Your task to perform on an android device: change keyboard looks Image 0: 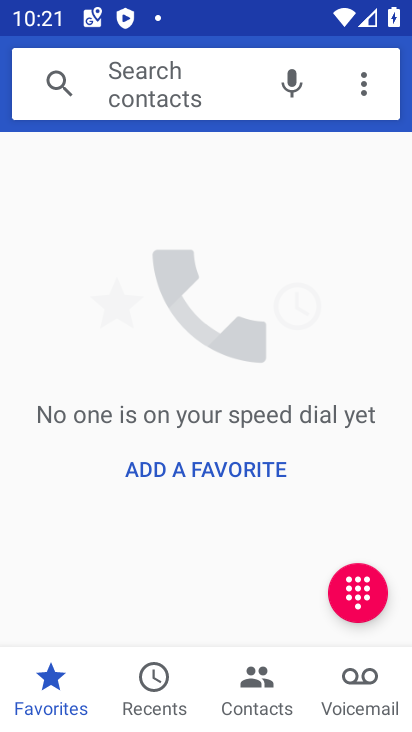
Step 0: press back button
Your task to perform on an android device: change keyboard looks Image 1: 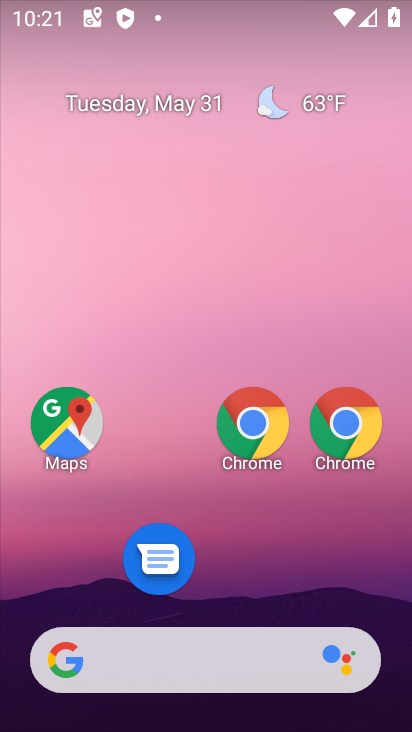
Step 1: drag from (271, 708) to (155, 72)
Your task to perform on an android device: change keyboard looks Image 2: 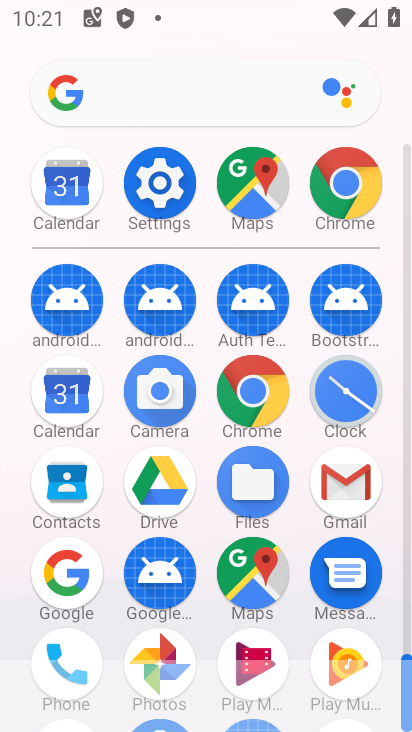
Step 2: click (159, 192)
Your task to perform on an android device: change keyboard looks Image 3: 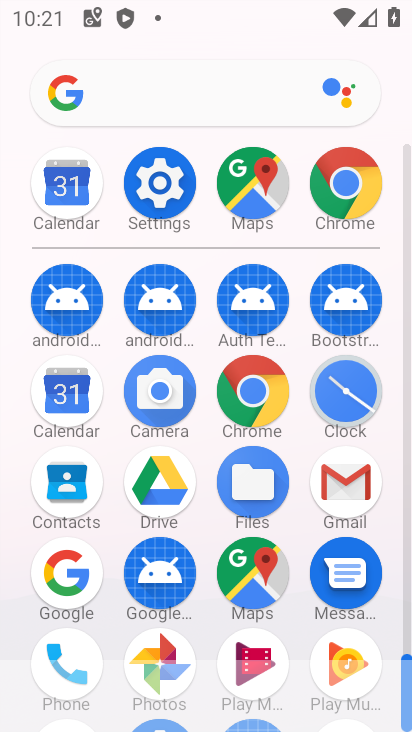
Step 3: click (156, 175)
Your task to perform on an android device: change keyboard looks Image 4: 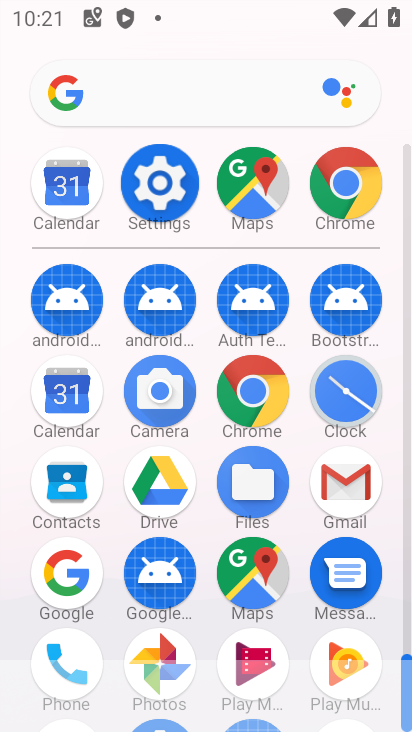
Step 4: click (160, 168)
Your task to perform on an android device: change keyboard looks Image 5: 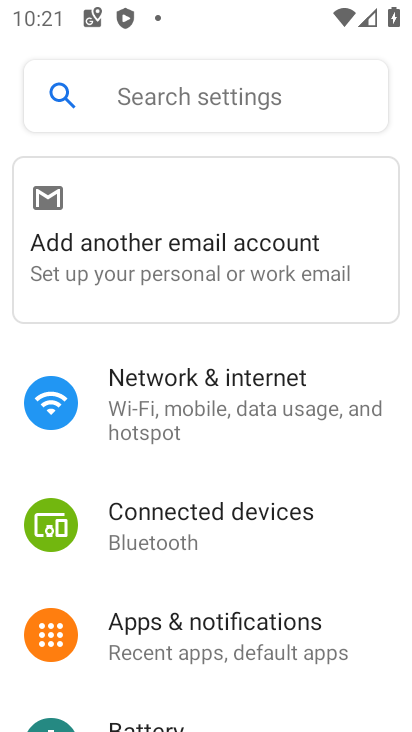
Step 5: drag from (223, 599) to (168, 322)
Your task to perform on an android device: change keyboard looks Image 6: 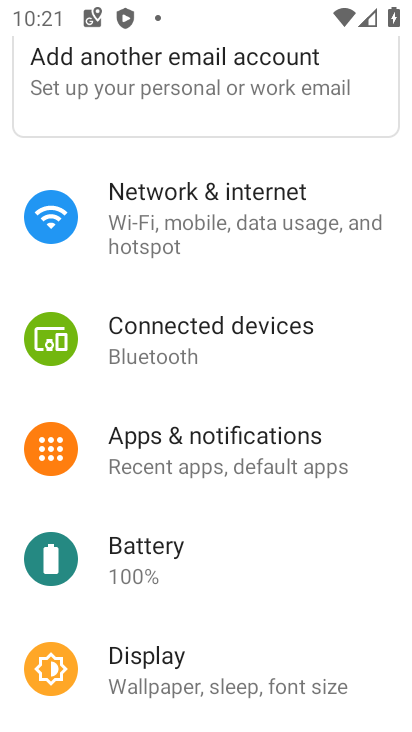
Step 6: drag from (274, 635) to (207, 277)
Your task to perform on an android device: change keyboard looks Image 7: 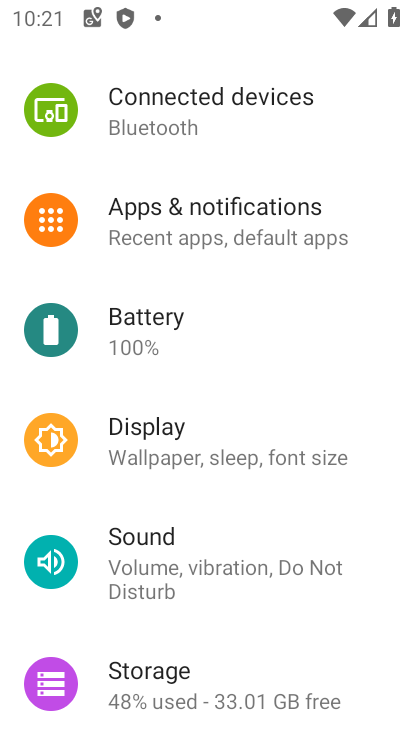
Step 7: drag from (235, 506) to (230, 202)
Your task to perform on an android device: change keyboard looks Image 8: 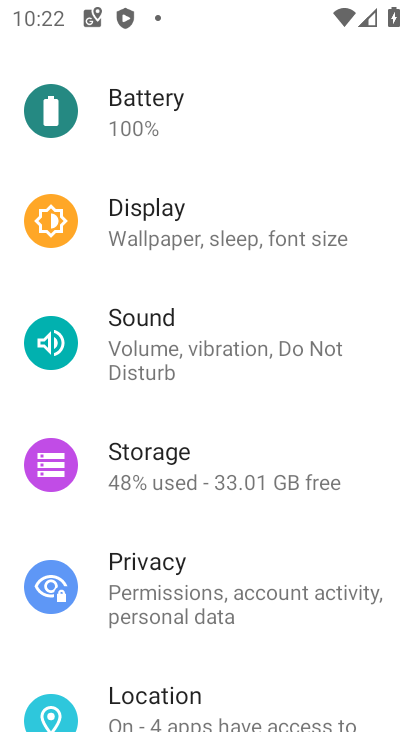
Step 8: drag from (228, 541) to (232, 154)
Your task to perform on an android device: change keyboard looks Image 9: 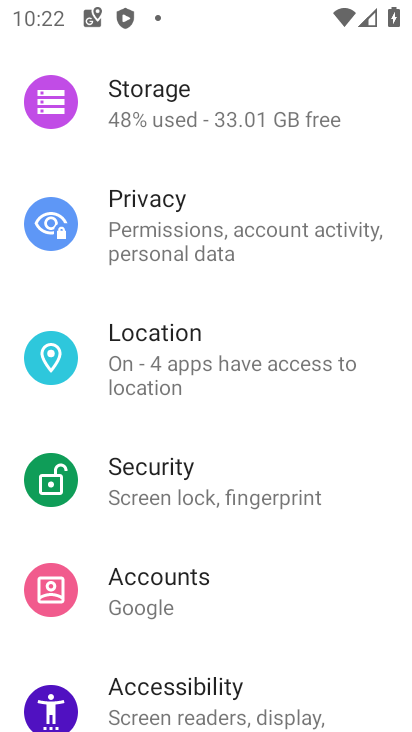
Step 9: drag from (243, 336) to (244, 160)
Your task to perform on an android device: change keyboard looks Image 10: 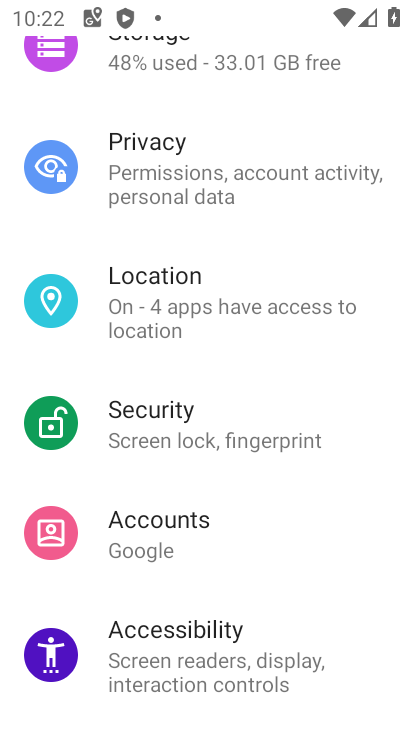
Step 10: drag from (165, 218) to (201, 429)
Your task to perform on an android device: change keyboard looks Image 11: 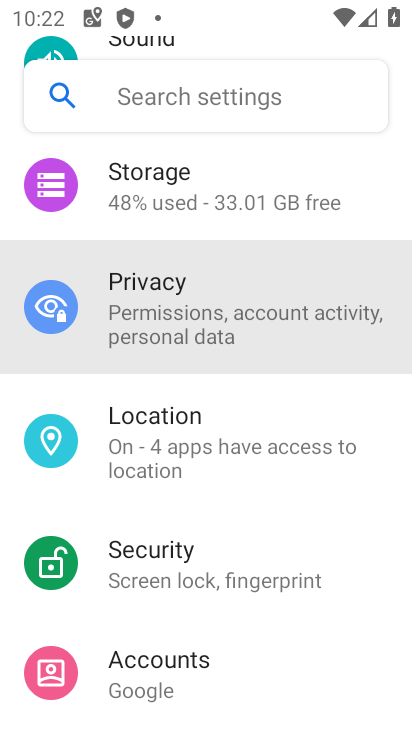
Step 11: drag from (174, 315) to (211, 577)
Your task to perform on an android device: change keyboard looks Image 12: 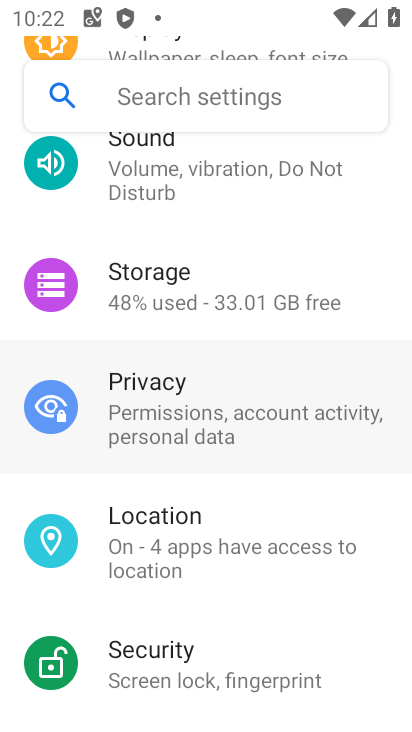
Step 12: drag from (159, 340) to (189, 518)
Your task to perform on an android device: change keyboard looks Image 13: 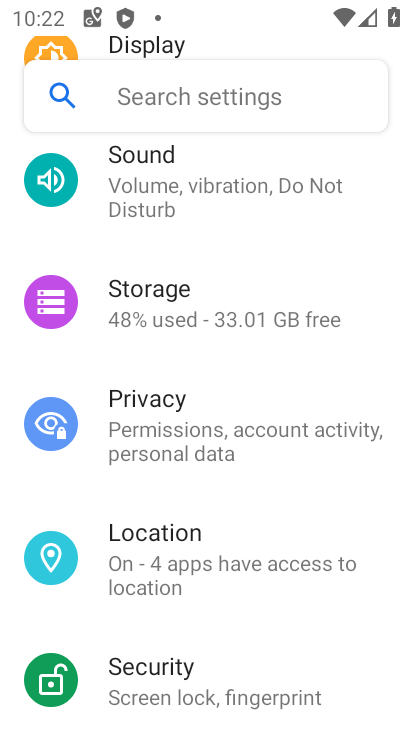
Step 13: drag from (189, 268) to (229, 561)
Your task to perform on an android device: change keyboard looks Image 14: 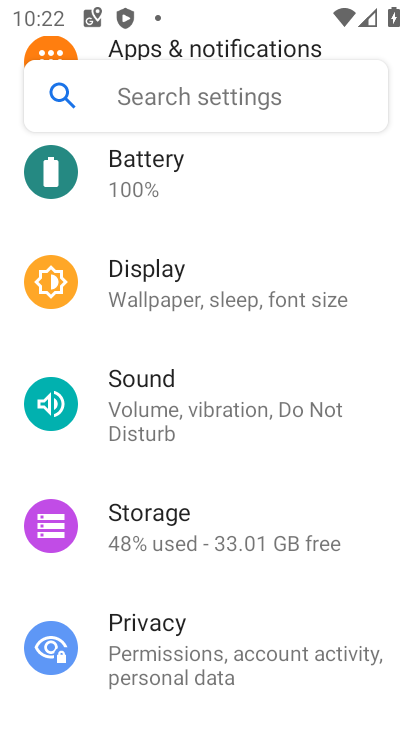
Step 14: drag from (172, 336) to (185, 497)
Your task to perform on an android device: change keyboard looks Image 15: 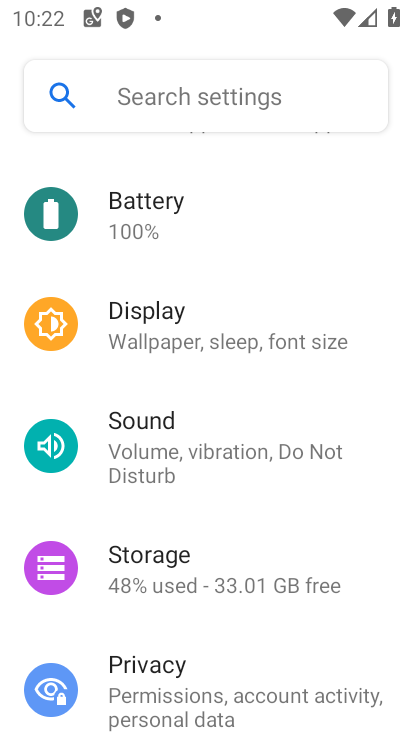
Step 15: drag from (186, 408) to (195, 517)
Your task to perform on an android device: change keyboard looks Image 16: 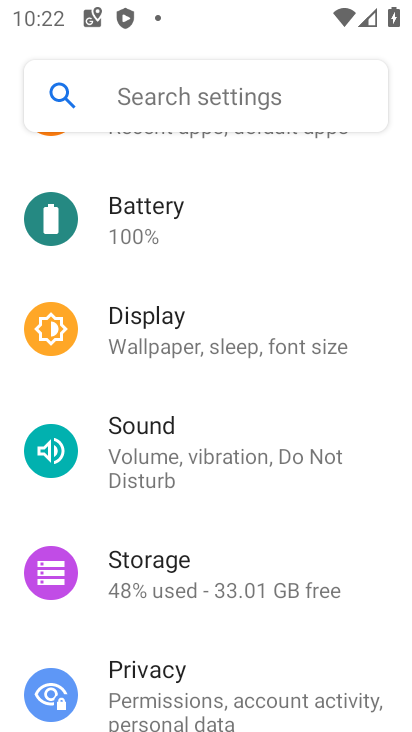
Step 16: drag from (195, 371) to (204, 594)
Your task to perform on an android device: change keyboard looks Image 17: 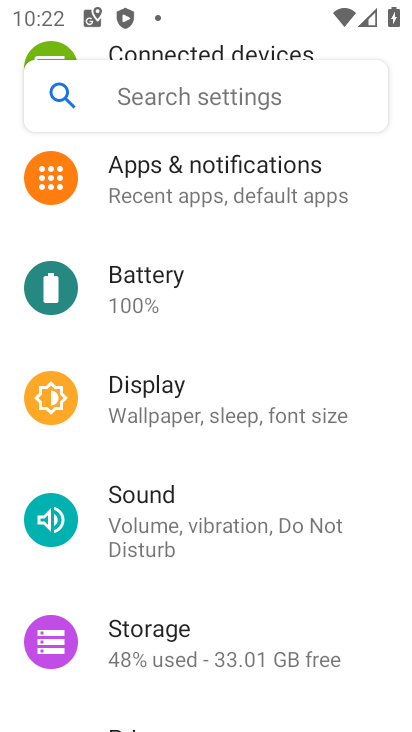
Step 17: drag from (189, 284) to (209, 523)
Your task to perform on an android device: change keyboard looks Image 18: 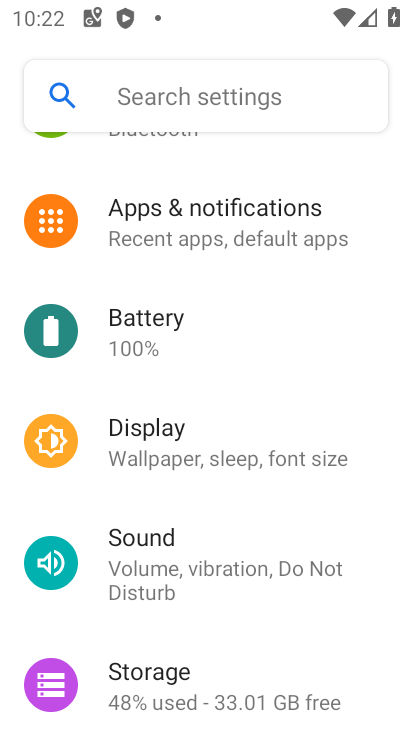
Step 18: drag from (190, 265) to (217, 584)
Your task to perform on an android device: change keyboard looks Image 19: 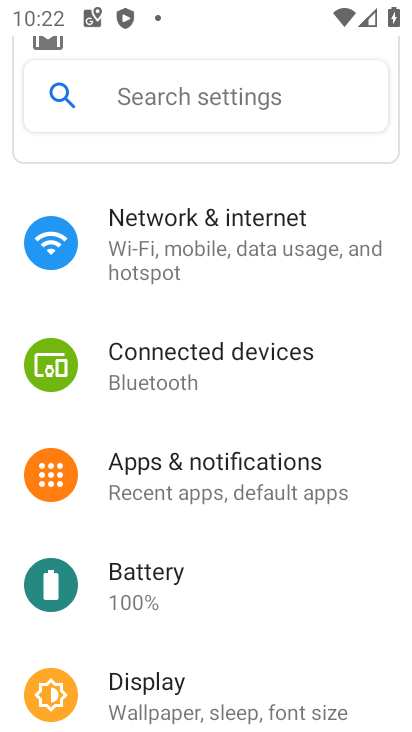
Step 19: drag from (199, 327) to (225, 553)
Your task to perform on an android device: change keyboard looks Image 20: 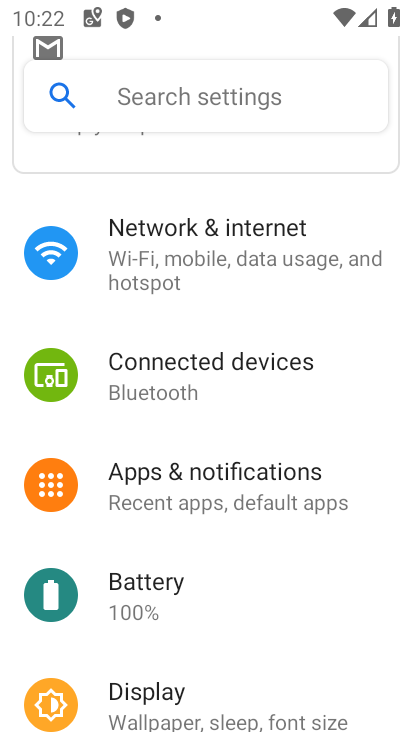
Step 20: drag from (224, 394) to (249, 634)
Your task to perform on an android device: change keyboard looks Image 21: 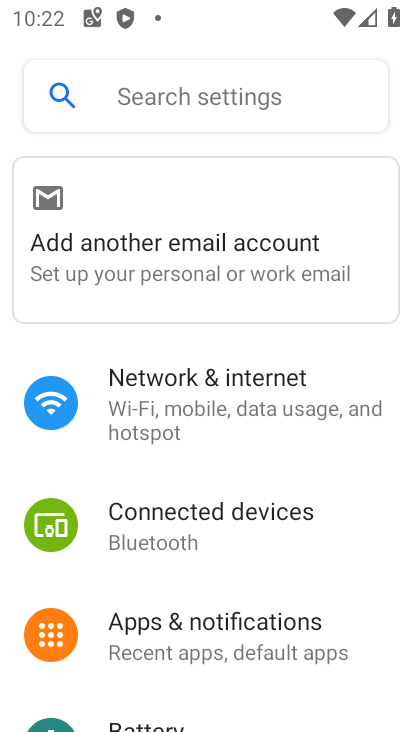
Step 21: drag from (230, 642) to (199, 340)
Your task to perform on an android device: change keyboard looks Image 22: 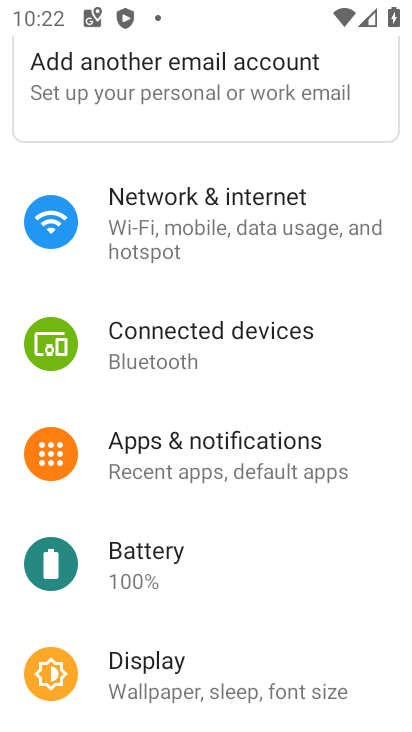
Step 22: drag from (208, 517) to (208, 289)
Your task to perform on an android device: change keyboard looks Image 23: 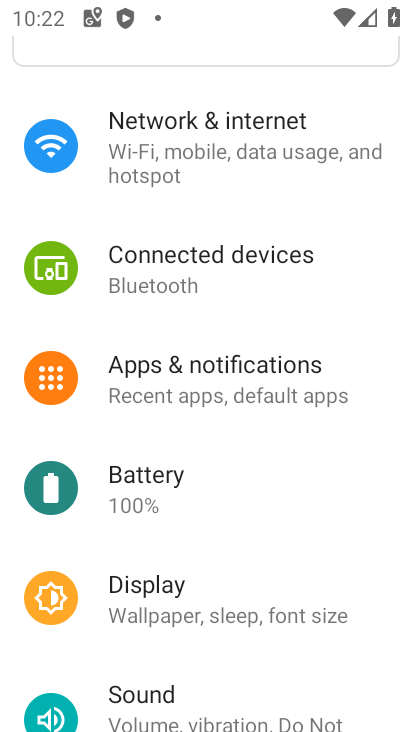
Step 23: drag from (243, 509) to (255, 255)
Your task to perform on an android device: change keyboard looks Image 24: 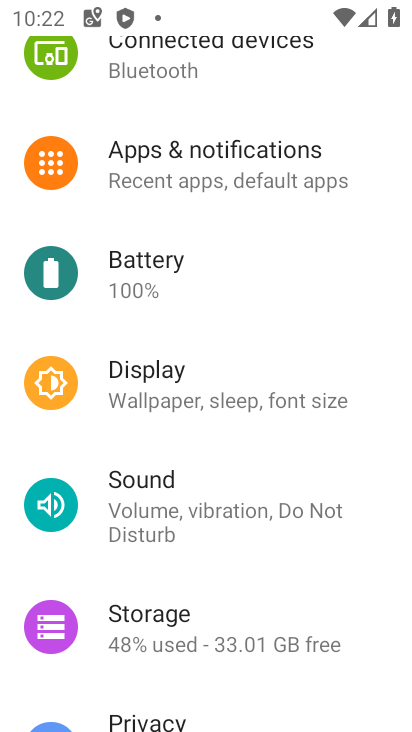
Step 24: drag from (271, 526) to (265, 218)
Your task to perform on an android device: change keyboard looks Image 25: 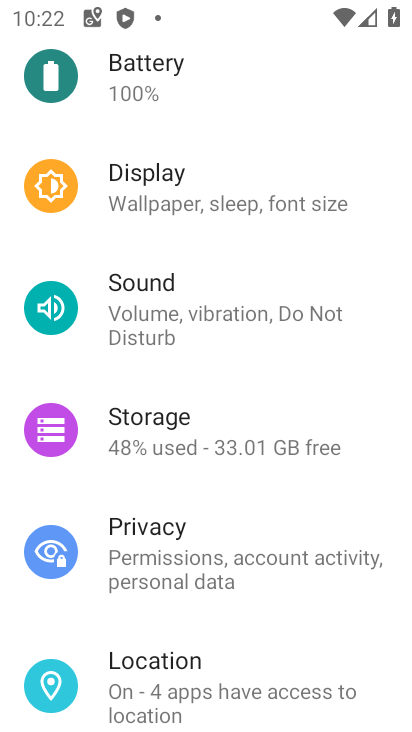
Step 25: drag from (281, 445) to (281, 181)
Your task to perform on an android device: change keyboard looks Image 26: 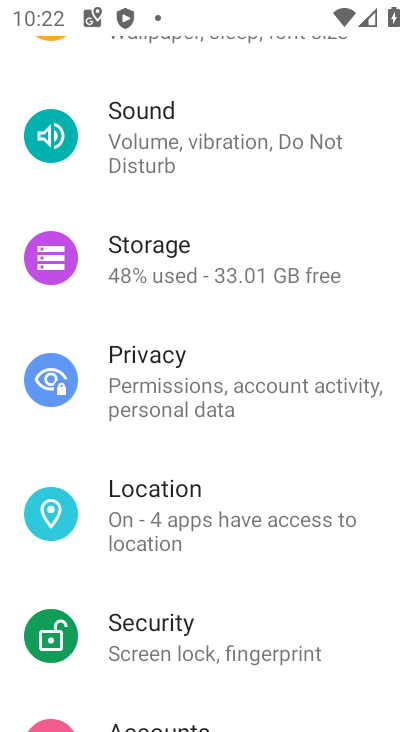
Step 26: drag from (278, 426) to (274, 175)
Your task to perform on an android device: change keyboard looks Image 27: 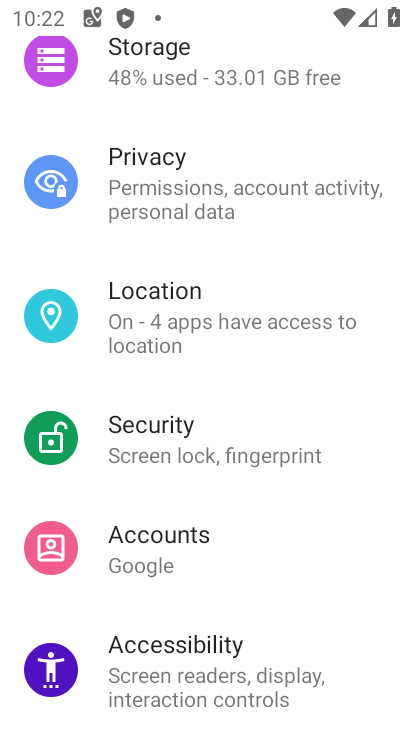
Step 27: drag from (247, 416) to (247, 135)
Your task to perform on an android device: change keyboard looks Image 28: 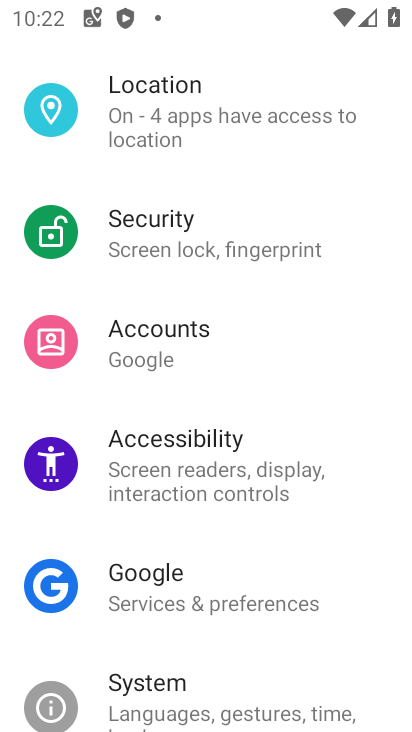
Step 28: drag from (219, 563) to (218, 196)
Your task to perform on an android device: change keyboard looks Image 29: 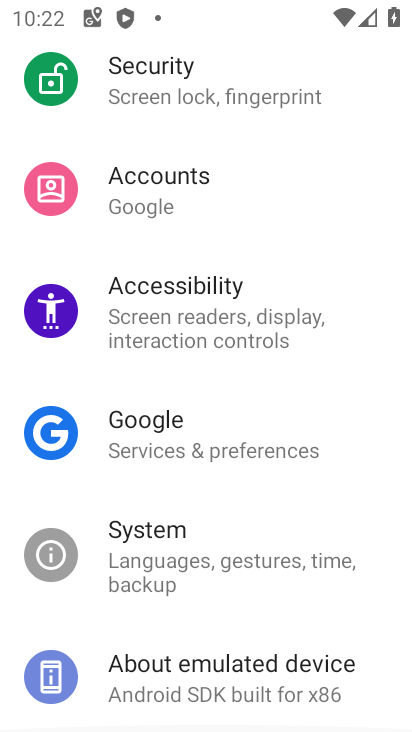
Step 29: drag from (241, 447) to (241, 228)
Your task to perform on an android device: change keyboard looks Image 30: 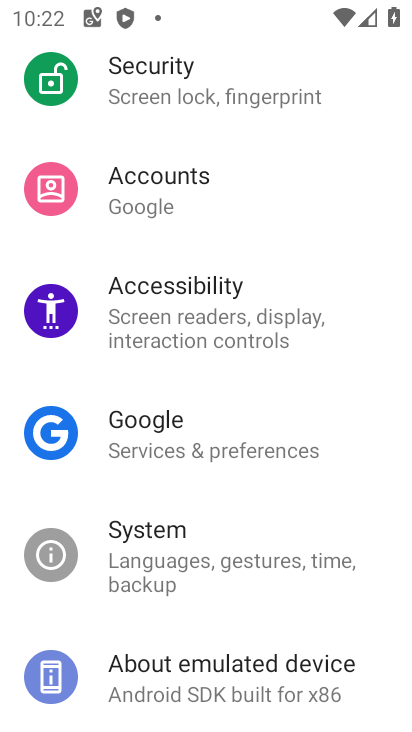
Step 30: click (144, 560)
Your task to perform on an android device: change keyboard looks Image 31: 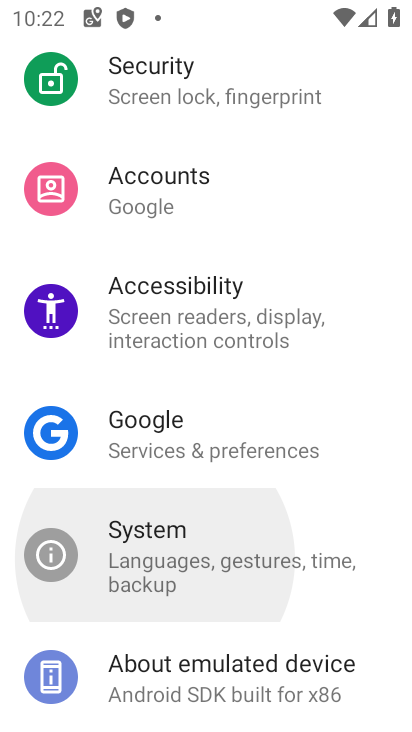
Step 31: click (144, 560)
Your task to perform on an android device: change keyboard looks Image 32: 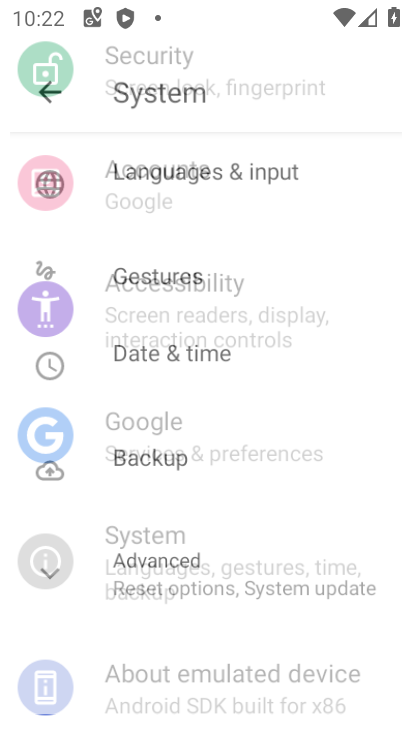
Step 32: click (144, 560)
Your task to perform on an android device: change keyboard looks Image 33: 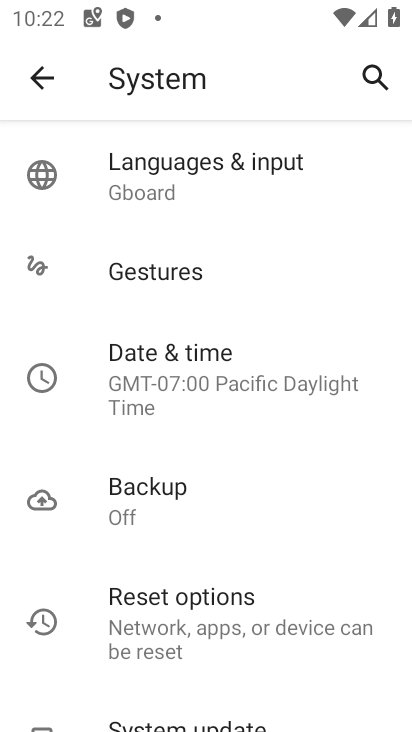
Step 33: click (149, 191)
Your task to perform on an android device: change keyboard looks Image 34: 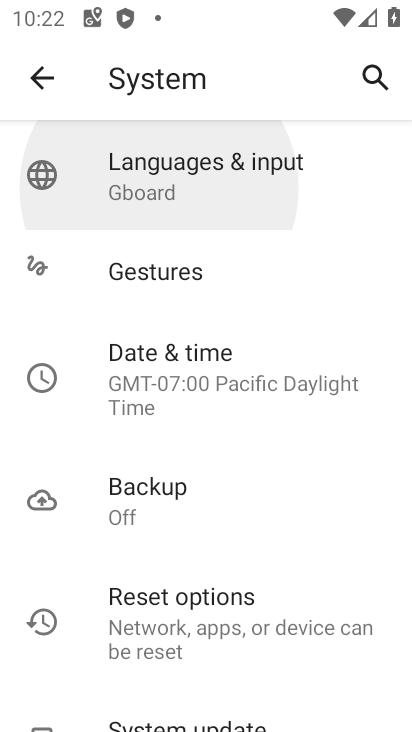
Step 34: click (146, 191)
Your task to perform on an android device: change keyboard looks Image 35: 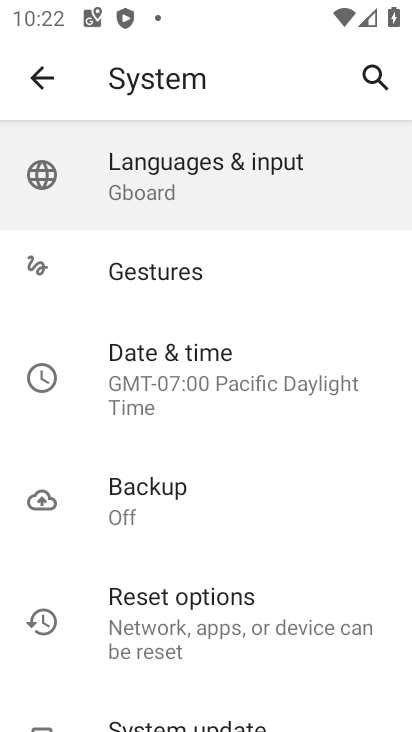
Step 35: click (146, 191)
Your task to perform on an android device: change keyboard looks Image 36: 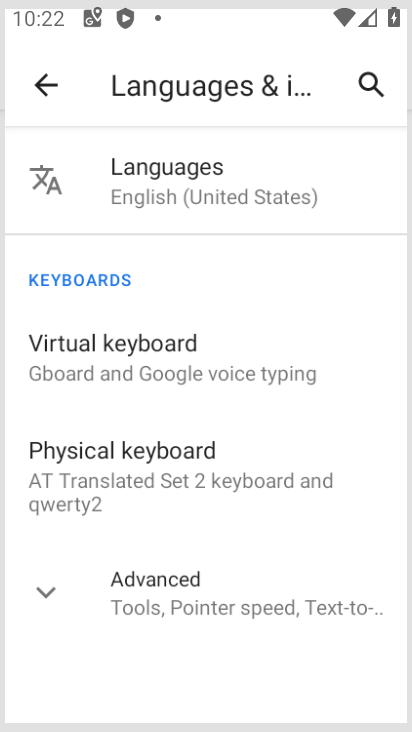
Step 36: click (149, 188)
Your task to perform on an android device: change keyboard looks Image 37: 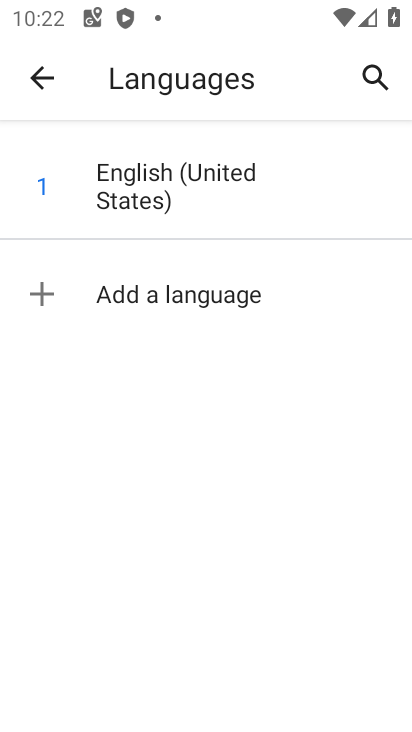
Step 37: click (37, 82)
Your task to perform on an android device: change keyboard looks Image 38: 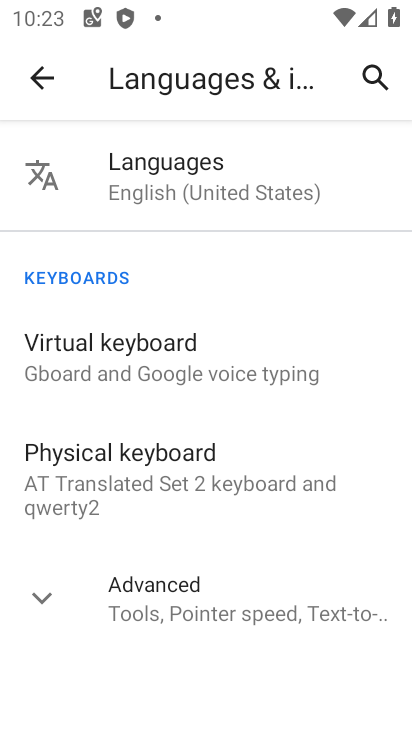
Step 38: click (61, 345)
Your task to perform on an android device: change keyboard looks Image 39: 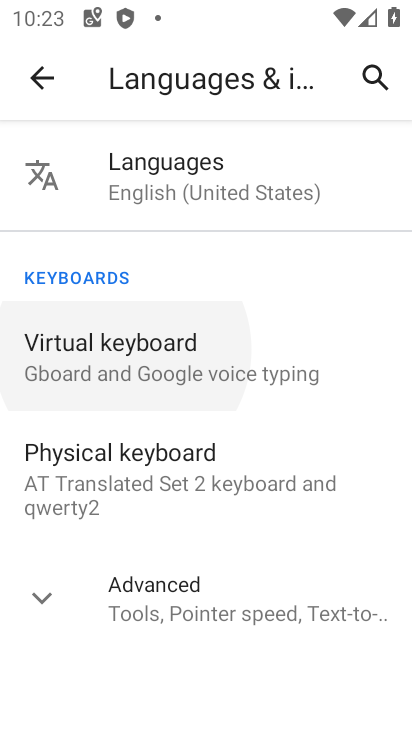
Step 39: click (61, 345)
Your task to perform on an android device: change keyboard looks Image 40: 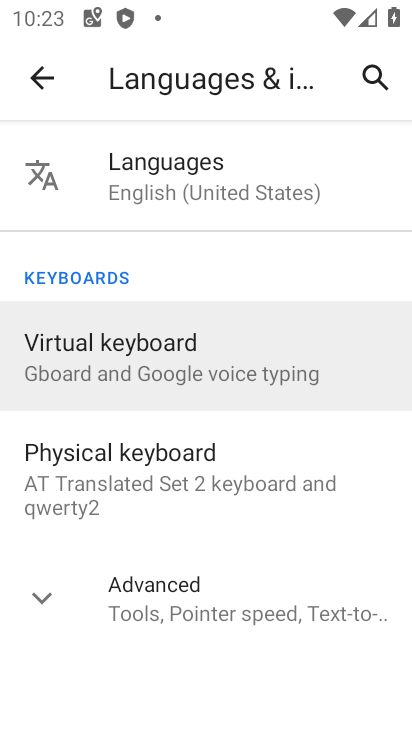
Step 40: click (62, 345)
Your task to perform on an android device: change keyboard looks Image 41: 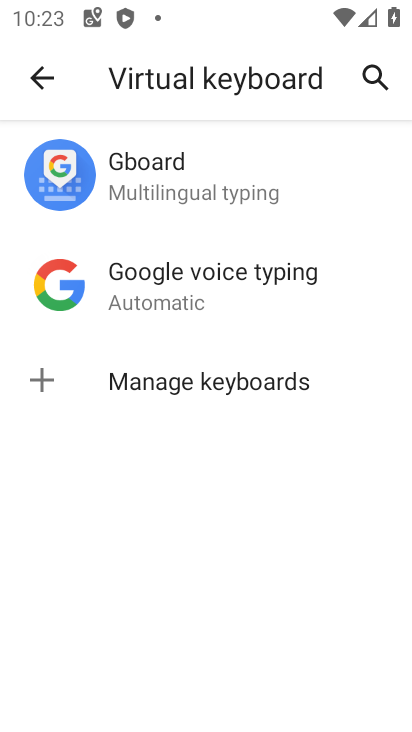
Step 41: click (154, 166)
Your task to perform on an android device: change keyboard looks Image 42: 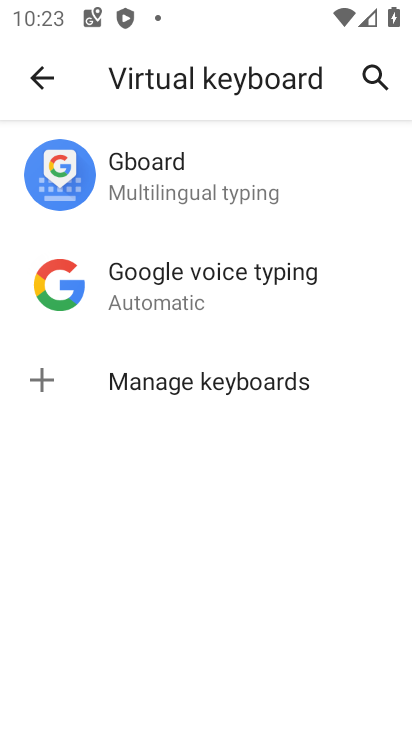
Step 42: click (155, 167)
Your task to perform on an android device: change keyboard looks Image 43: 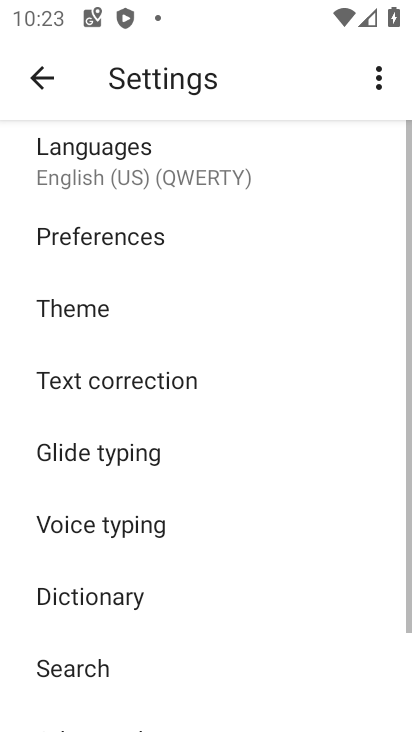
Step 43: click (83, 305)
Your task to perform on an android device: change keyboard looks Image 44: 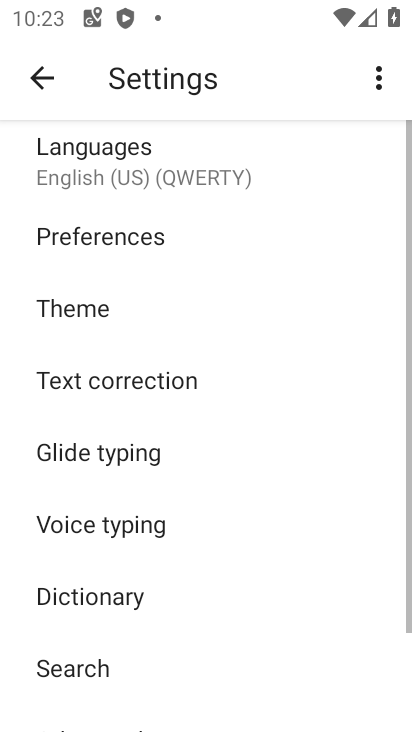
Step 44: click (83, 305)
Your task to perform on an android device: change keyboard looks Image 45: 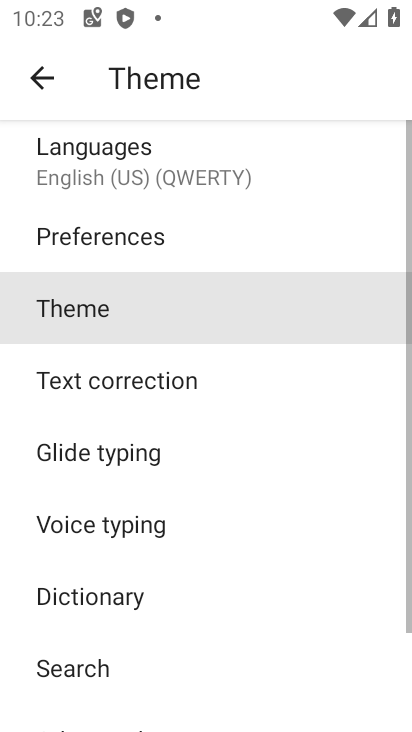
Step 45: click (82, 306)
Your task to perform on an android device: change keyboard looks Image 46: 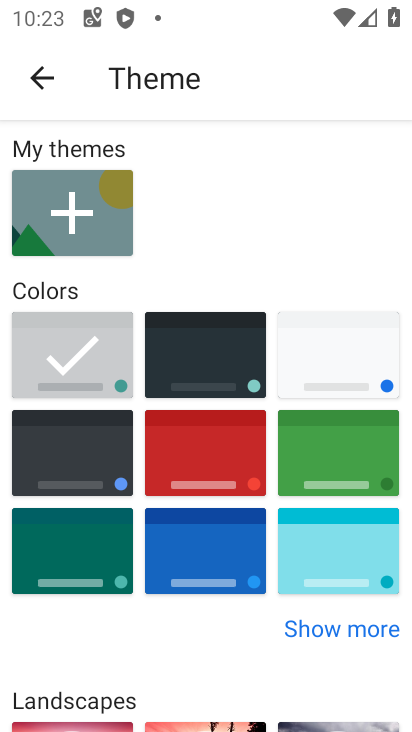
Step 46: click (200, 428)
Your task to perform on an android device: change keyboard looks Image 47: 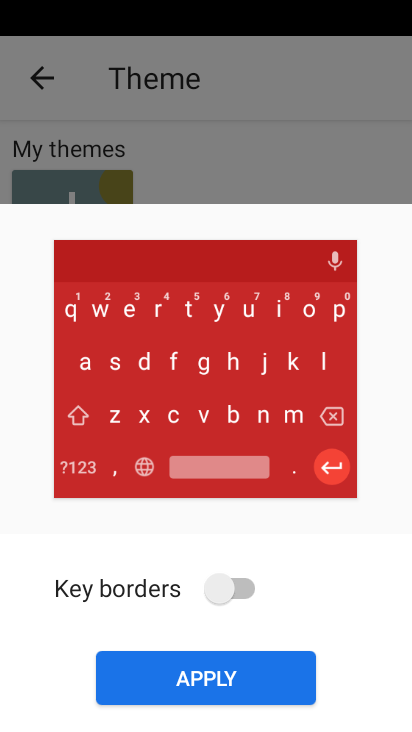
Step 47: click (203, 682)
Your task to perform on an android device: change keyboard looks Image 48: 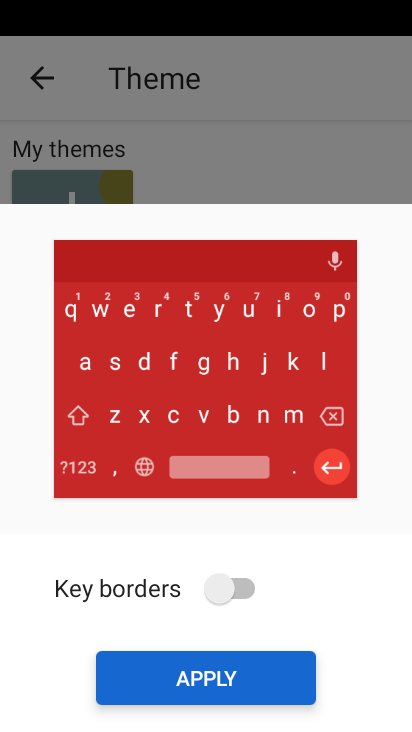
Step 48: click (209, 678)
Your task to perform on an android device: change keyboard looks Image 49: 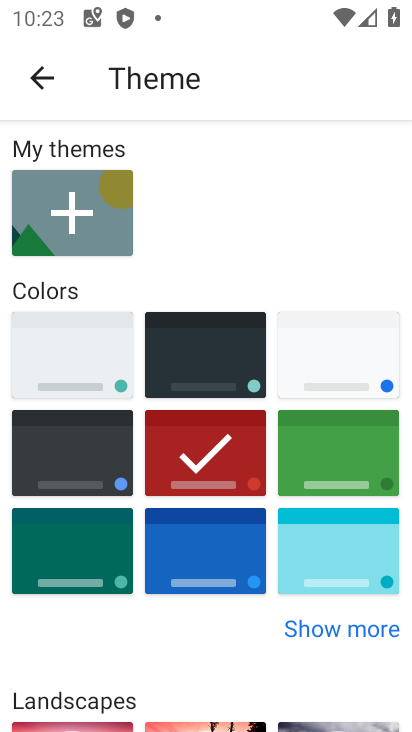
Step 49: task complete